Your task to perform on an android device: Go to Yahoo.com Image 0: 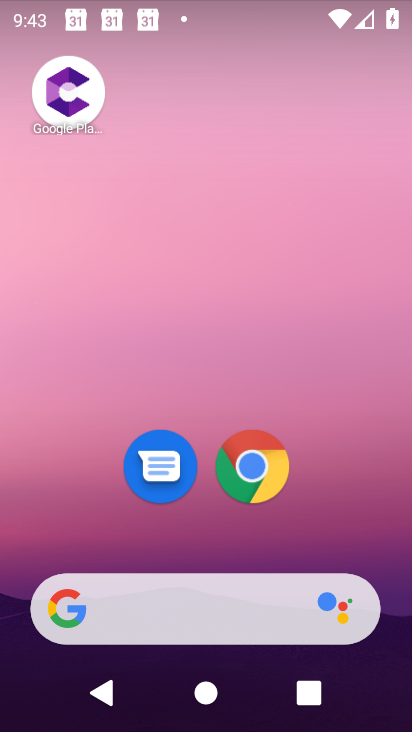
Step 0: click (251, 464)
Your task to perform on an android device: Go to Yahoo.com Image 1: 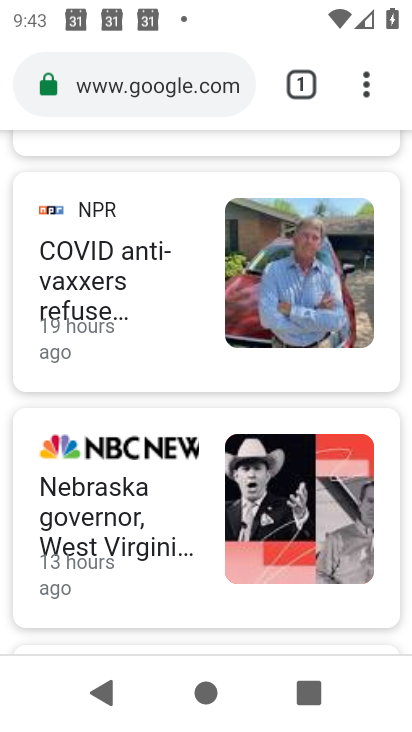
Step 1: click (186, 85)
Your task to perform on an android device: Go to Yahoo.com Image 2: 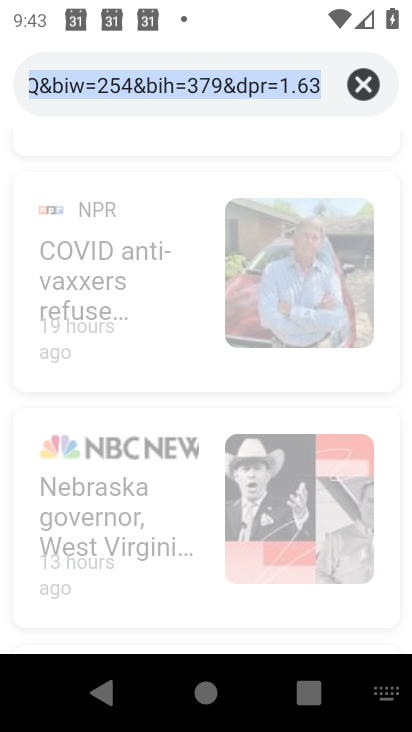
Step 2: type "yahoo.com"
Your task to perform on an android device: Go to Yahoo.com Image 3: 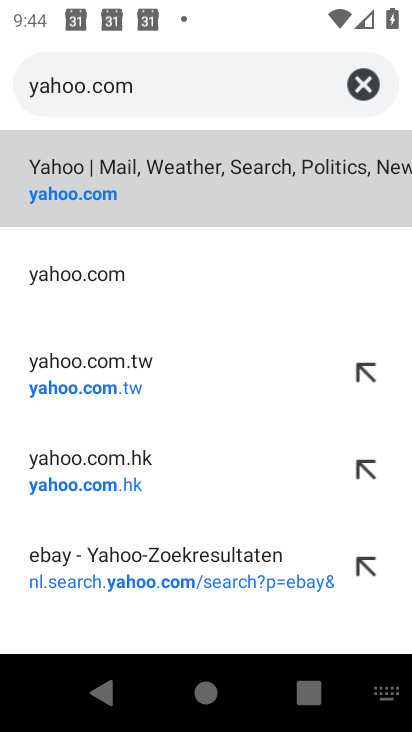
Step 3: click (93, 180)
Your task to perform on an android device: Go to Yahoo.com Image 4: 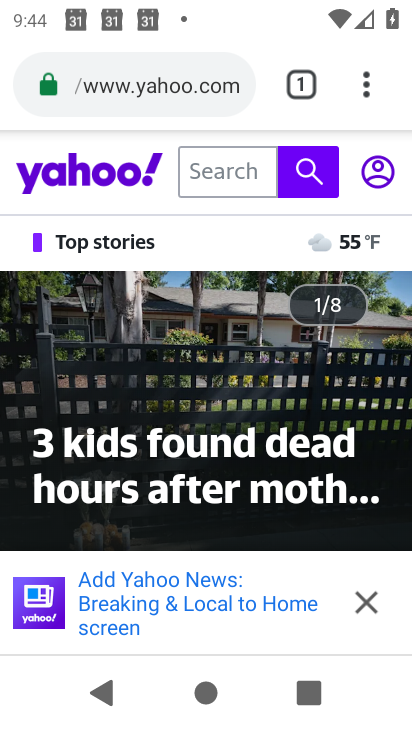
Step 4: task complete